Your task to perform on an android device: Search for electric lawnmowers on Home Depot Image 0: 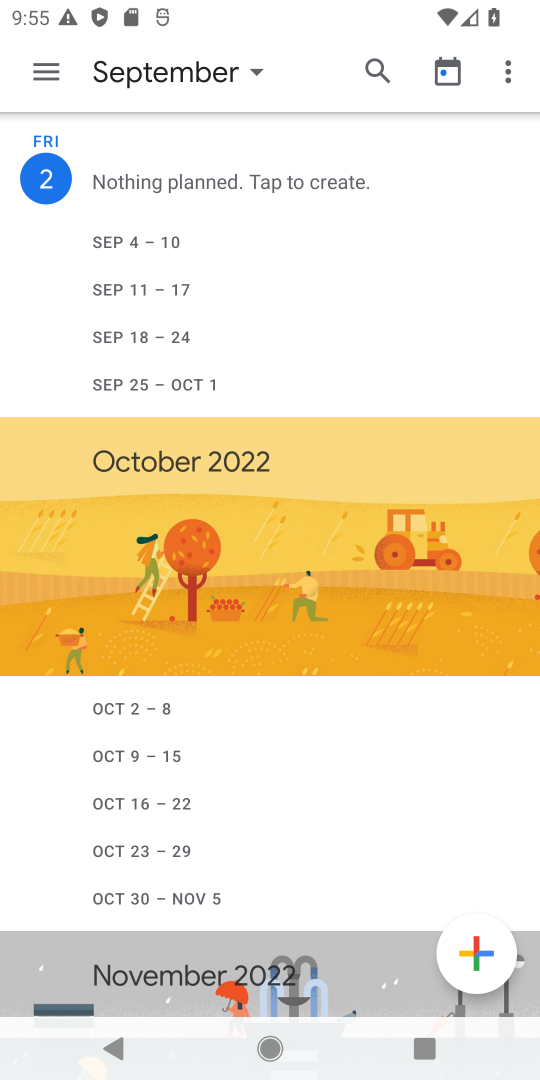
Step 0: press home button
Your task to perform on an android device: Search for electric lawnmowers on Home Depot Image 1: 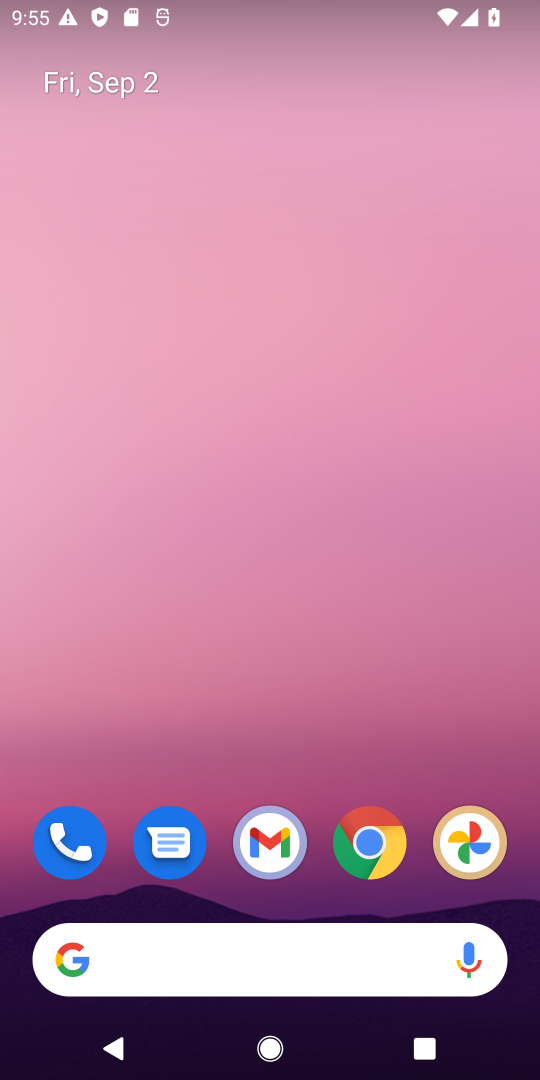
Step 1: drag from (150, 850) to (310, 125)
Your task to perform on an android device: Search for electric lawnmowers on Home Depot Image 2: 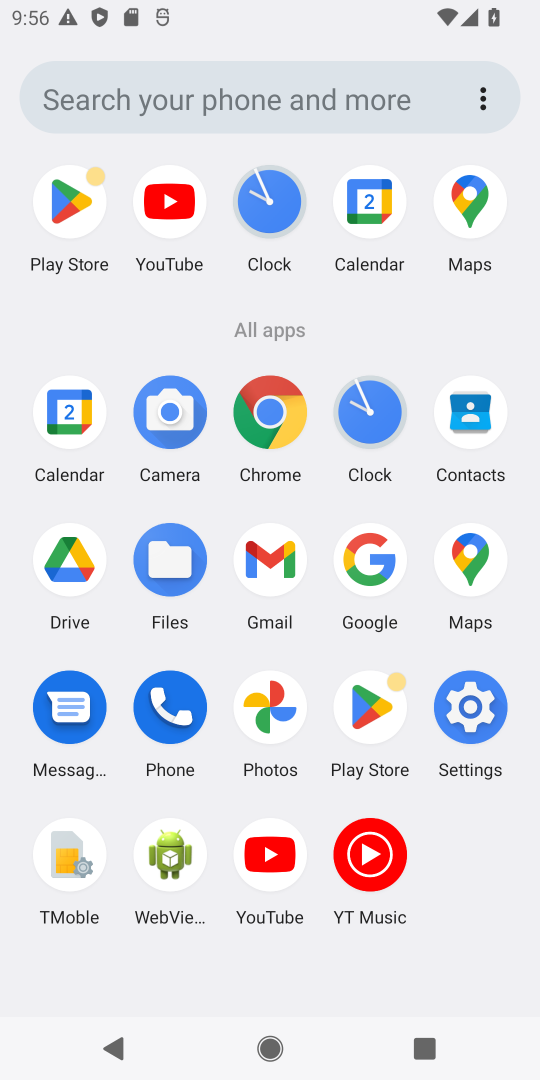
Step 2: click (263, 425)
Your task to perform on an android device: Search for electric lawnmowers on Home Depot Image 3: 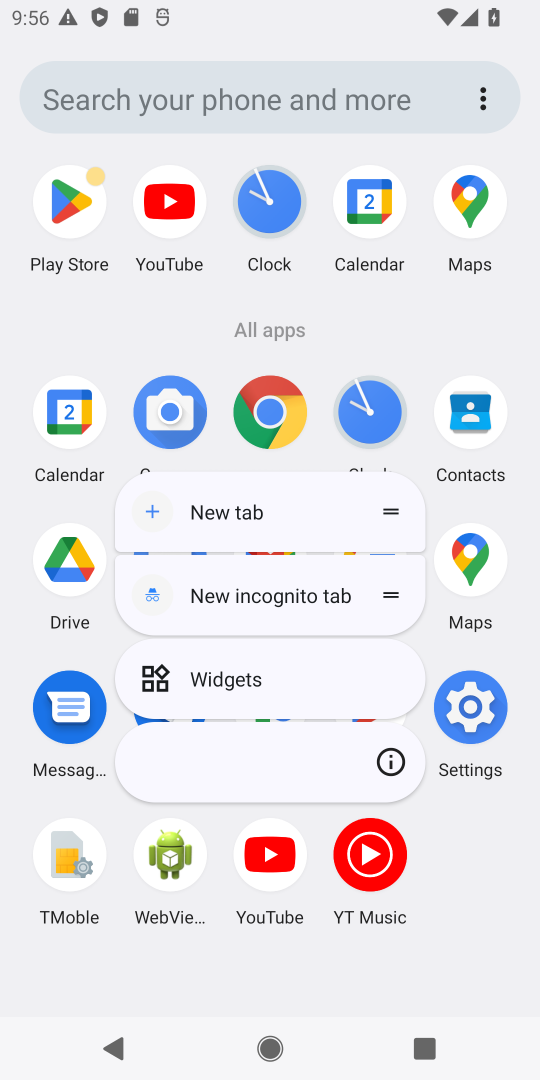
Step 3: click (264, 424)
Your task to perform on an android device: Search for electric lawnmowers on Home Depot Image 4: 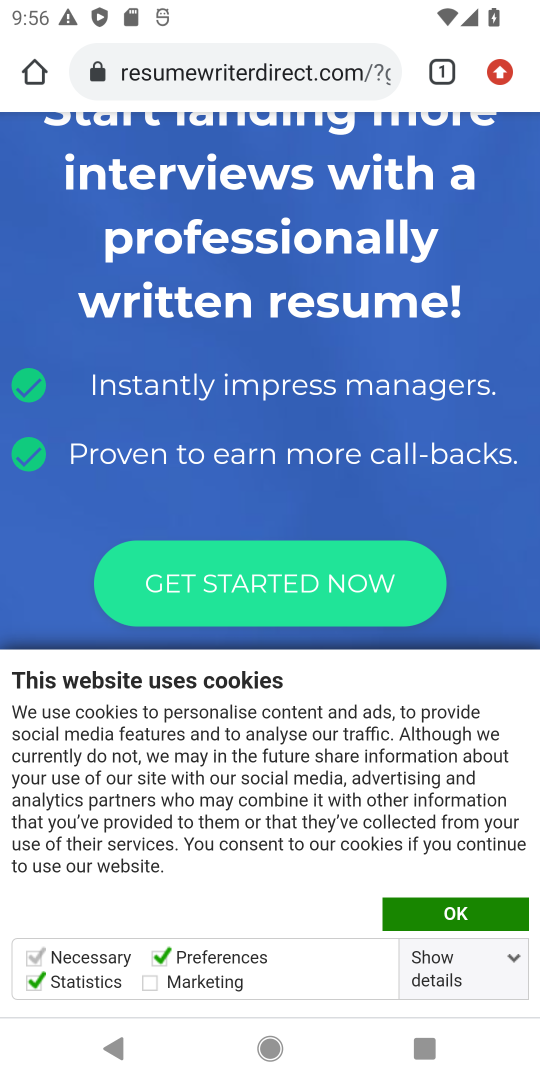
Step 4: click (235, 61)
Your task to perform on an android device: Search for electric lawnmowers on Home Depot Image 5: 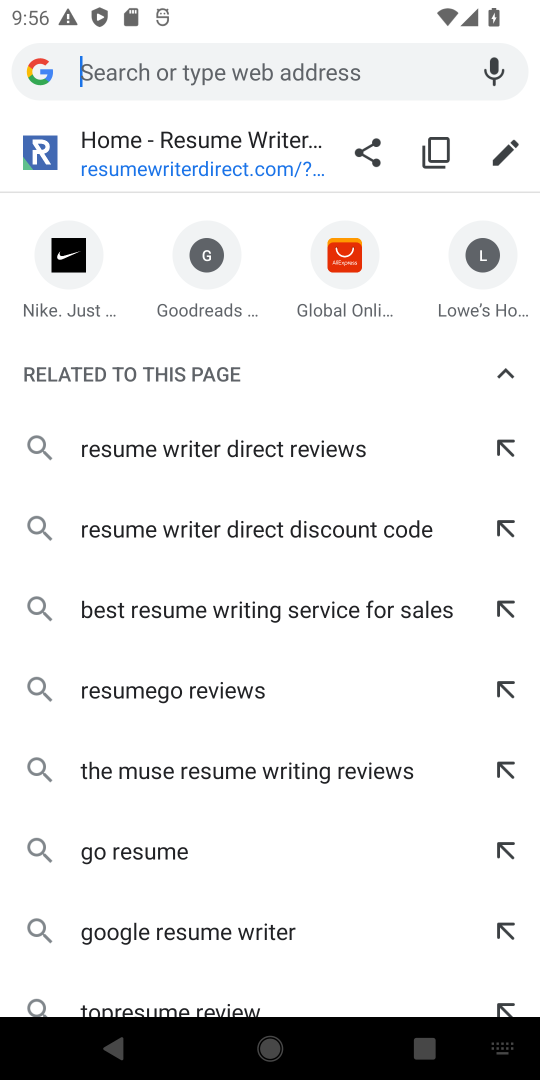
Step 5: drag from (486, 1060) to (540, 546)
Your task to perform on an android device: Search for electric lawnmowers on Home Depot Image 6: 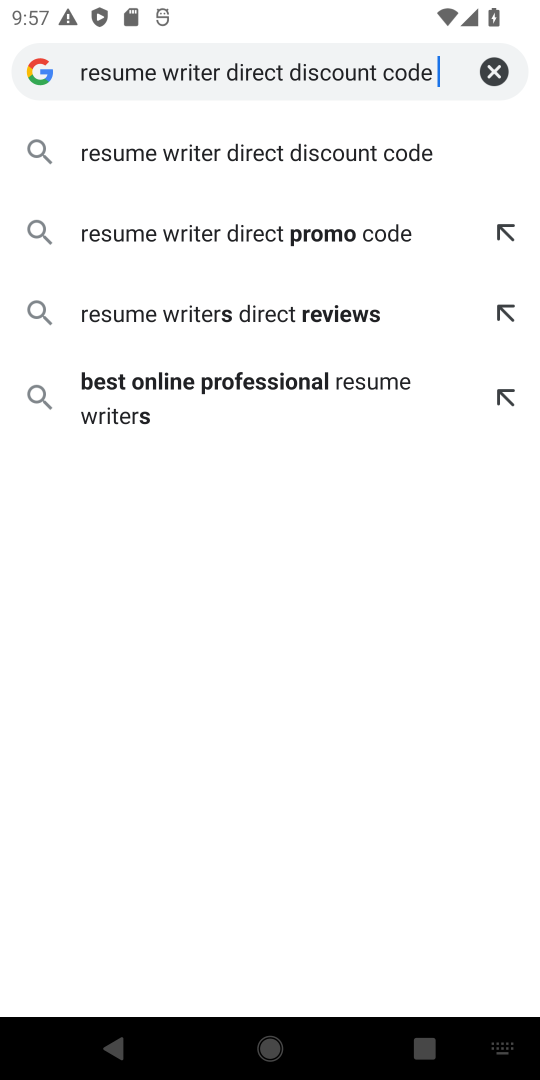
Step 6: type "Home Depot"
Your task to perform on an android device: Search for electric lawnmowers on Home Depot Image 7: 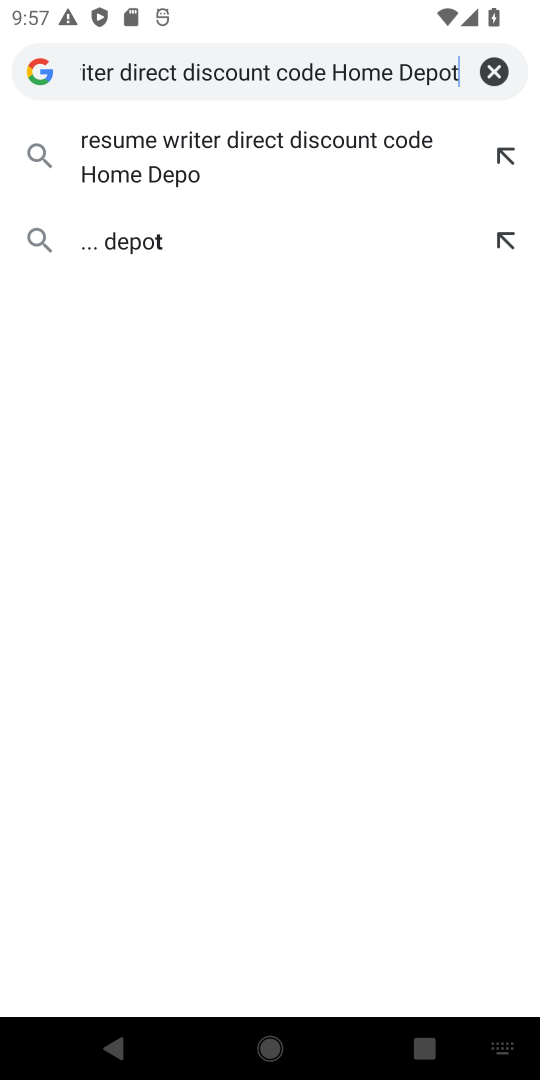
Step 7: press enter
Your task to perform on an android device: Search for electric lawnmowers on Home Depot Image 8: 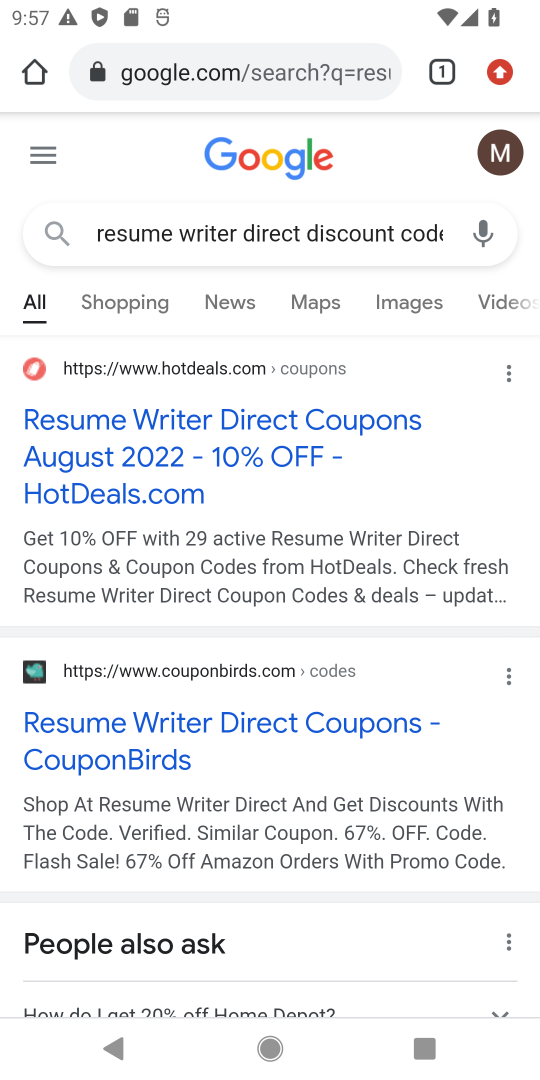
Step 8: click (274, 238)
Your task to perform on an android device: Search for electric lawnmowers on Home Depot Image 9: 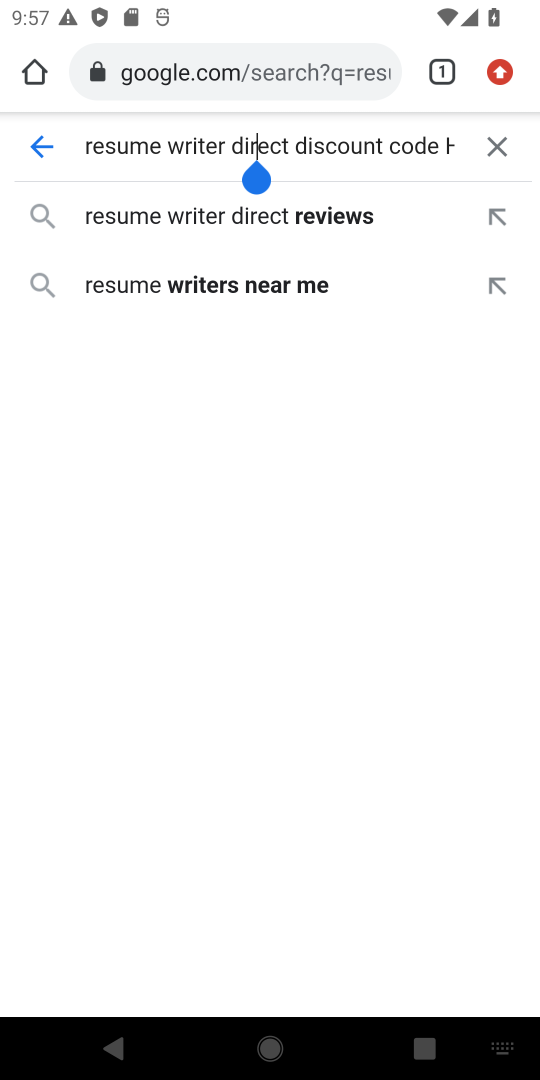
Step 9: click (222, 57)
Your task to perform on an android device: Search for electric lawnmowers on Home Depot Image 10: 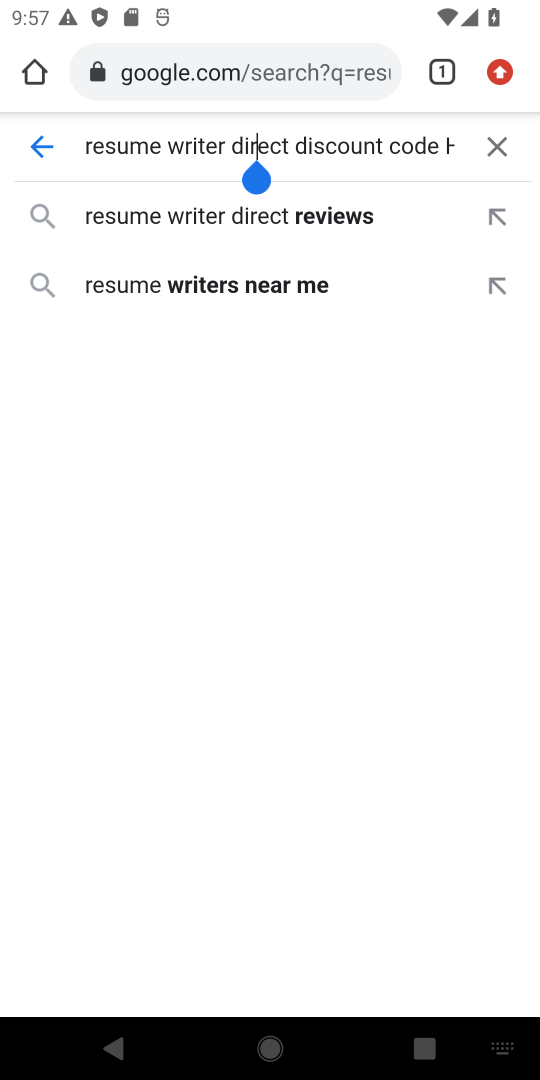
Step 10: click (222, 57)
Your task to perform on an android device: Search for electric lawnmowers on Home Depot Image 11: 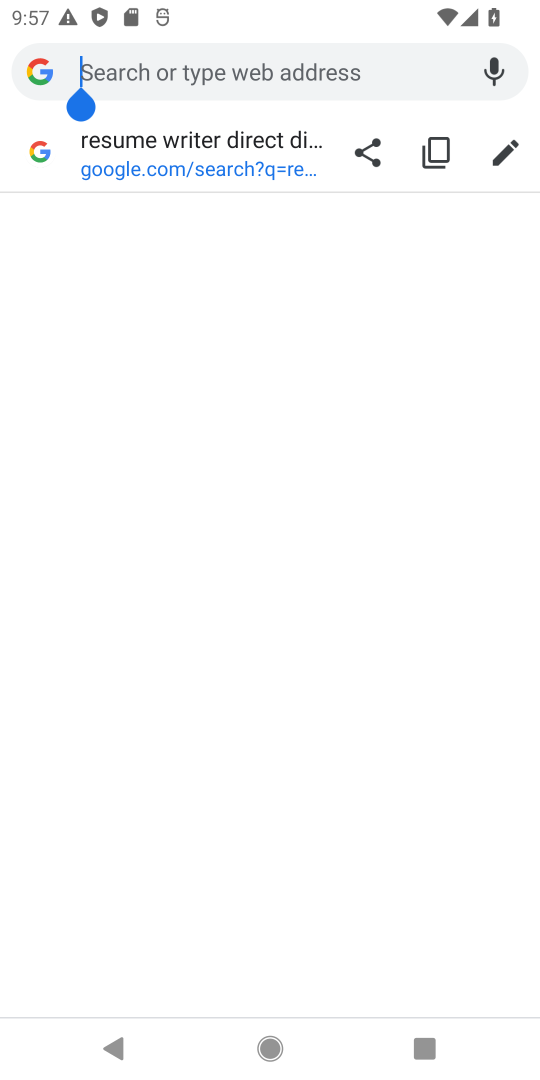
Step 11: click (217, 95)
Your task to perform on an android device: Search for electric lawnmowers on Home Depot Image 12: 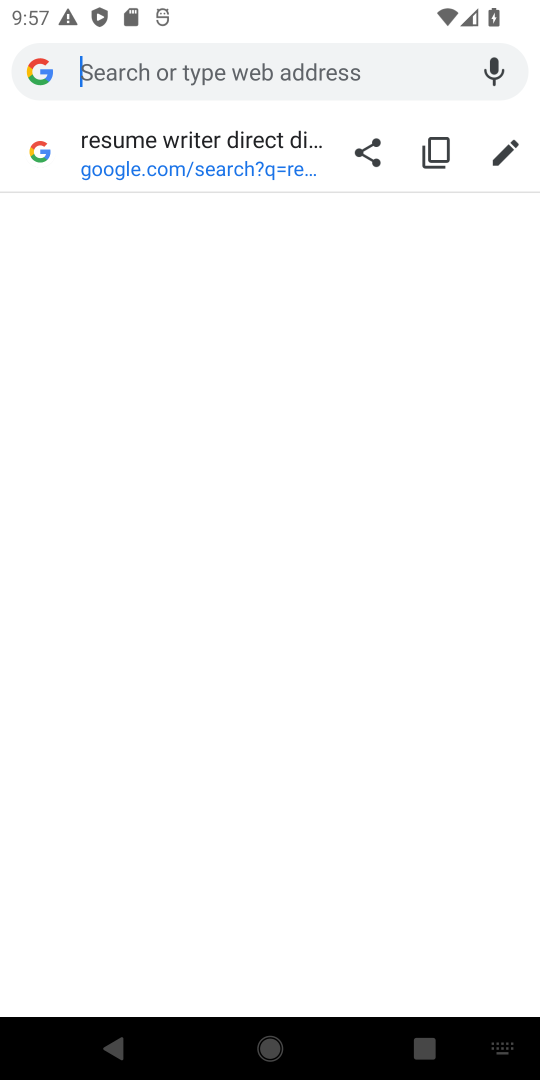
Step 12: type "Home Depot"
Your task to perform on an android device: Search for electric lawnmowers on Home Depot Image 13: 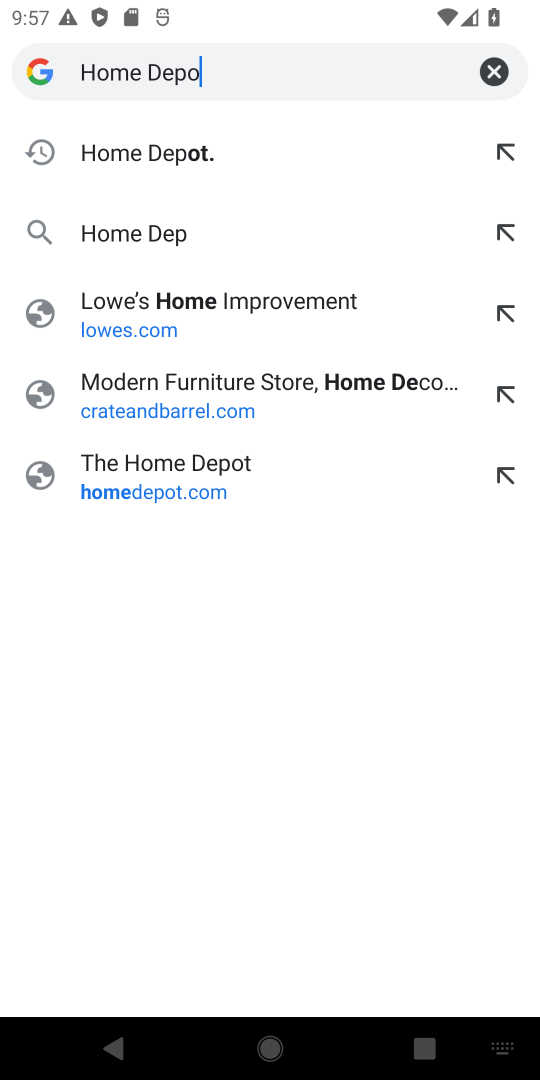
Step 13: press enter
Your task to perform on an android device: Search for electric lawnmowers on Home Depot Image 14: 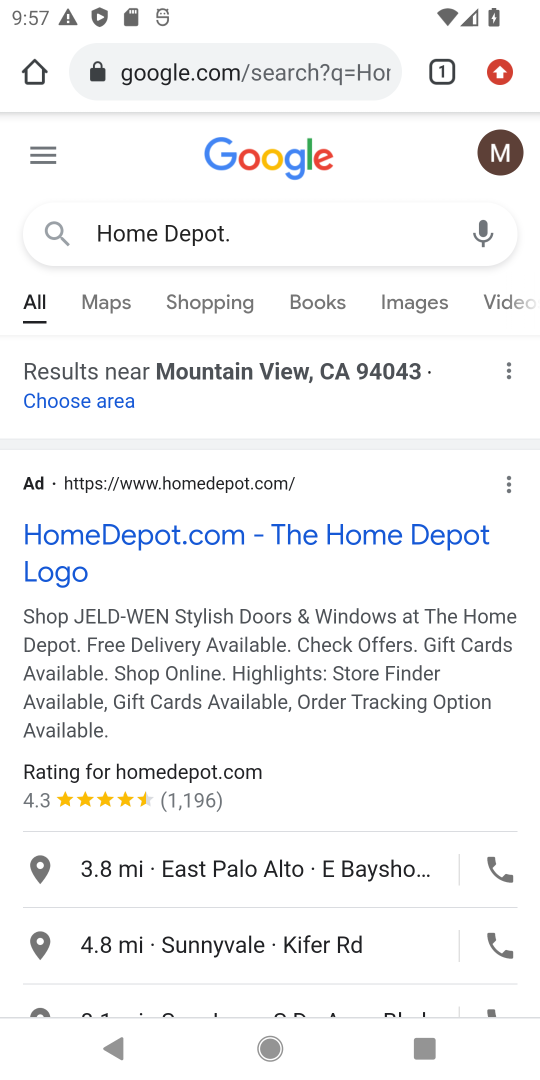
Step 14: click (99, 548)
Your task to perform on an android device: Search for electric lawnmowers on Home Depot Image 15: 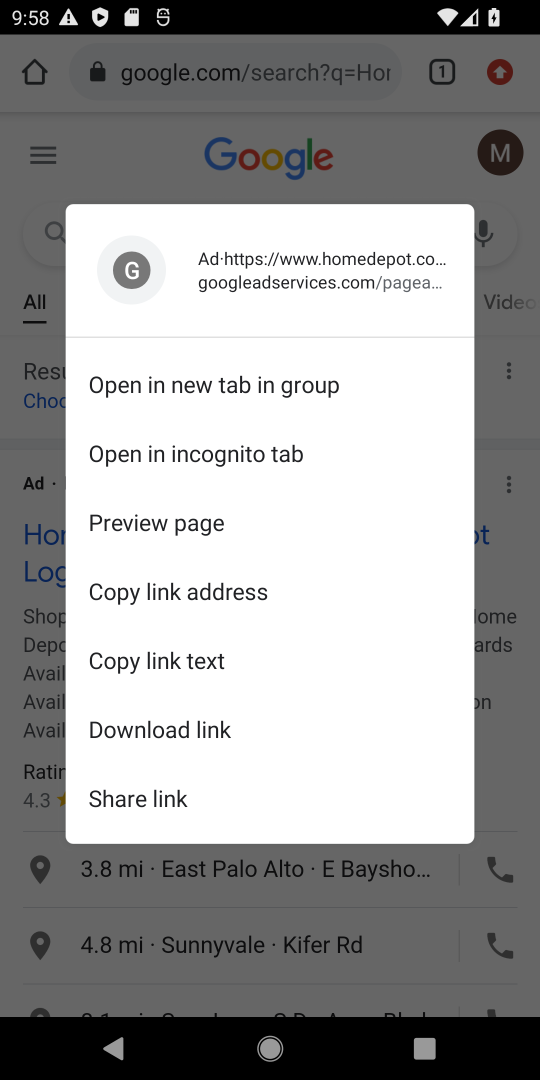
Step 15: press back button
Your task to perform on an android device: Search for electric lawnmowers on Home Depot Image 16: 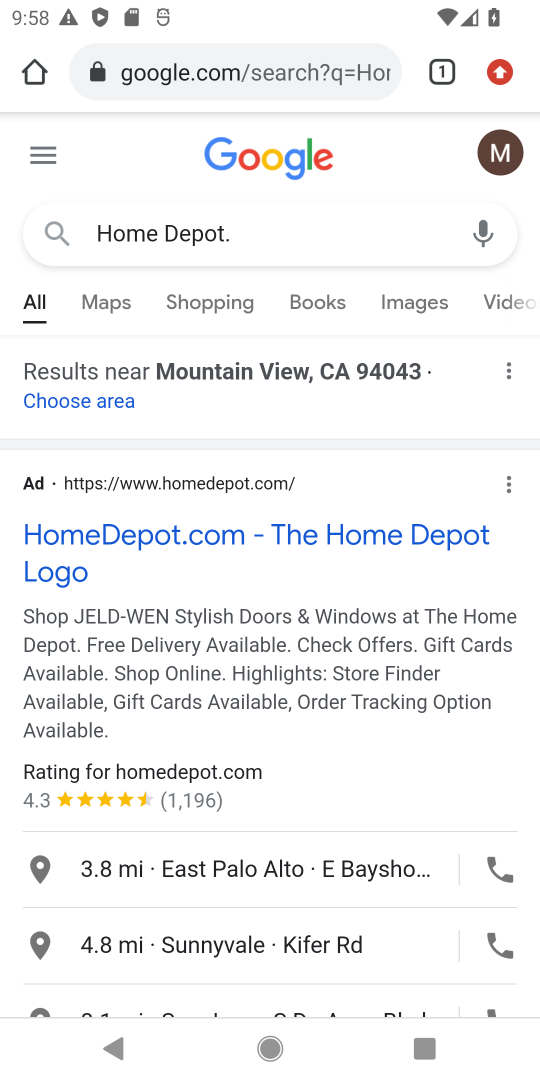
Step 16: drag from (110, 658) to (161, 350)
Your task to perform on an android device: Search for electric lawnmowers on Home Depot Image 17: 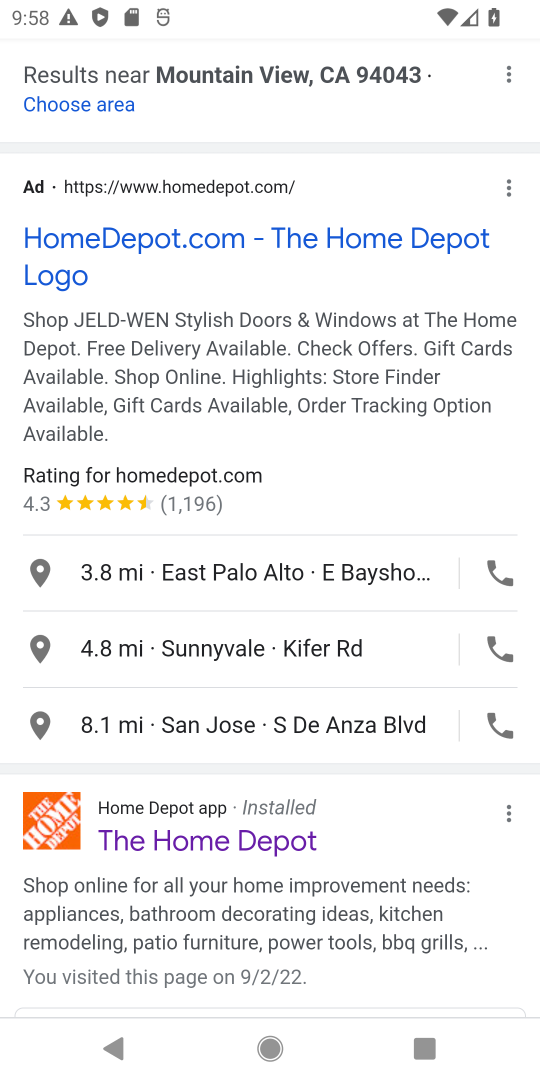
Step 17: click (88, 829)
Your task to perform on an android device: Search for electric lawnmowers on Home Depot Image 18: 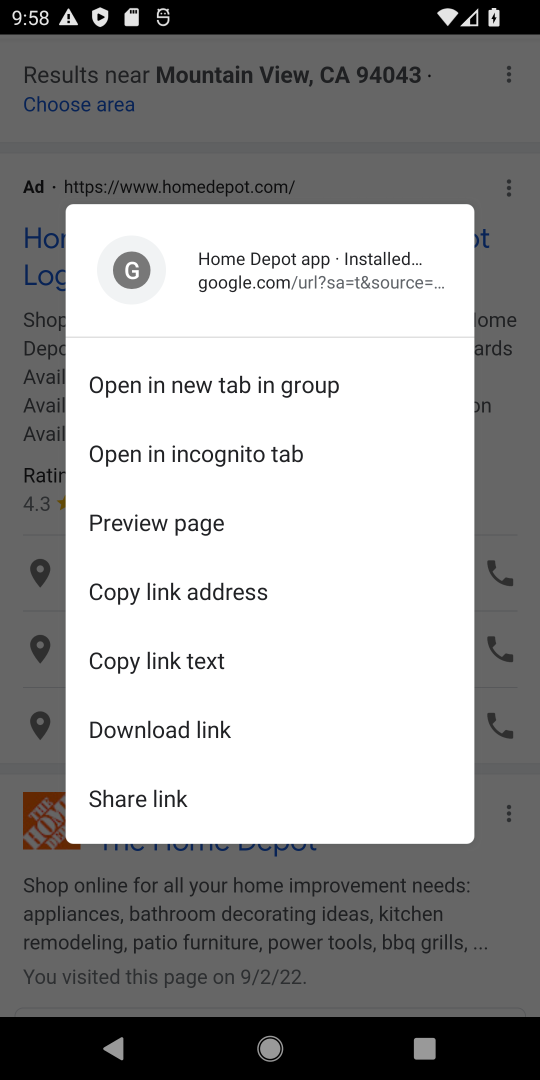
Step 18: click (154, 948)
Your task to perform on an android device: Search for electric lawnmowers on Home Depot Image 19: 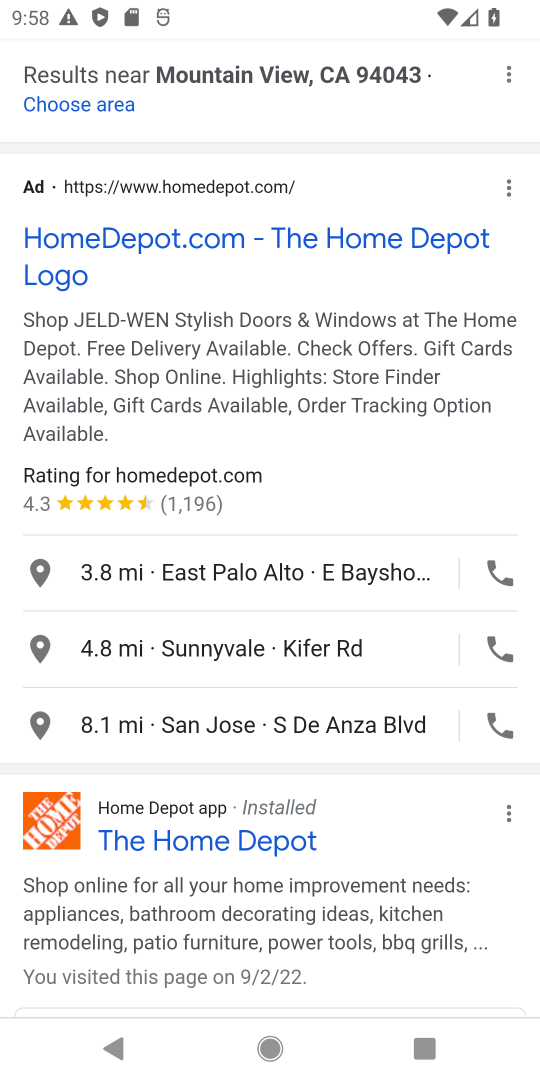
Step 19: click (161, 846)
Your task to perform on an android device: Search for electric lawnmowers on Home Depot Image 20: 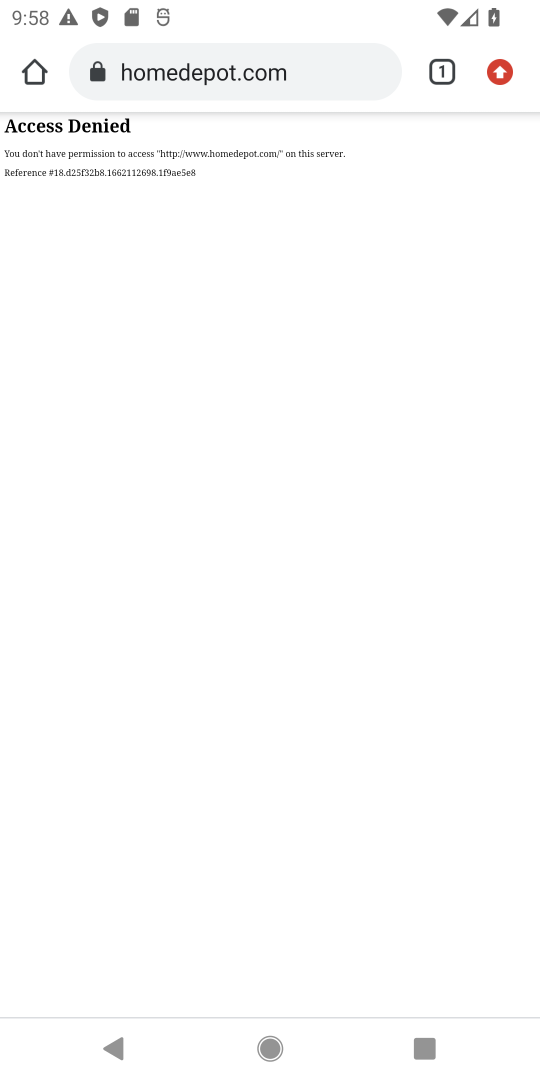
Step 20: task complete